Your task to perform on an android device: turn off location history Image 0: 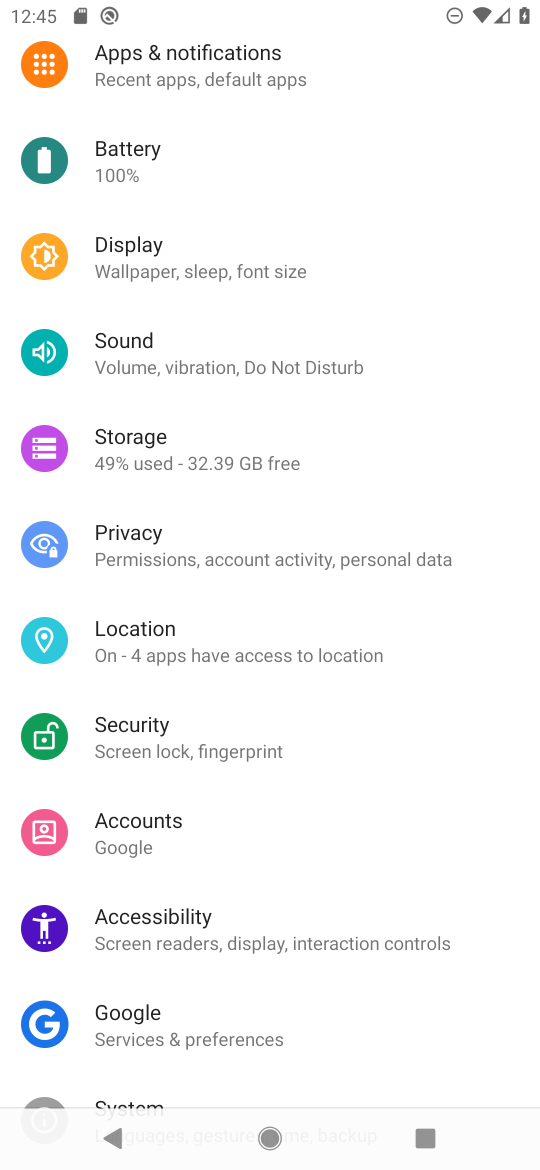
Step 0: click (129, 650)
Your task to perform on an android device: turn off location history Image 1: 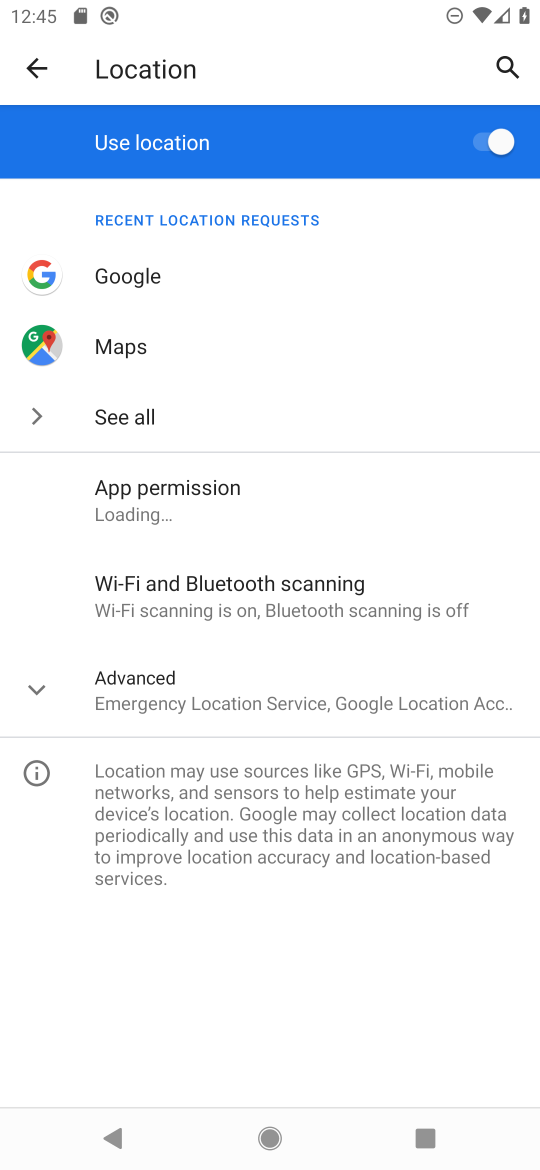
Step 1: click (330, 729)
Your task to perform on an android device: turn off location history Image 2: 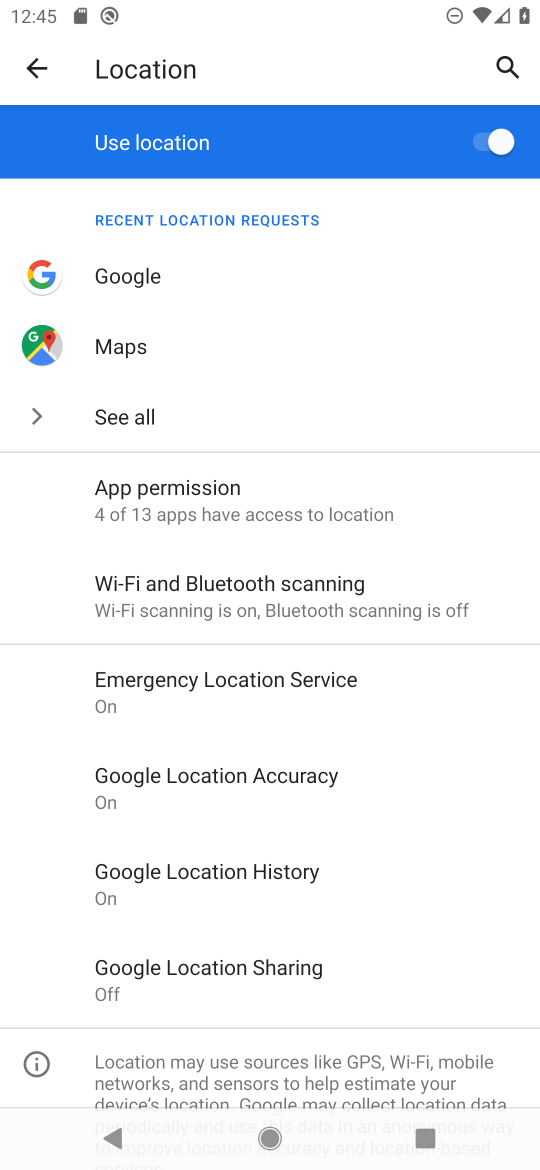
Step 2: click (243, 895)
Your task to perform on an android device: turn off location history Image 3: 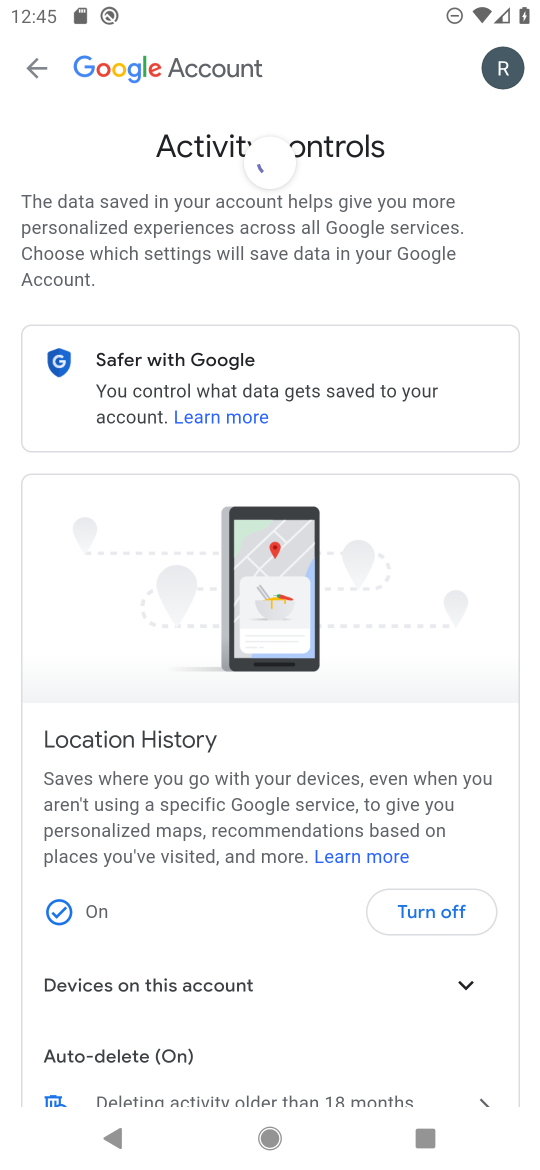
Step 3: click (404, 925)
Your task to perform on an android device: turn off location history Image 4: 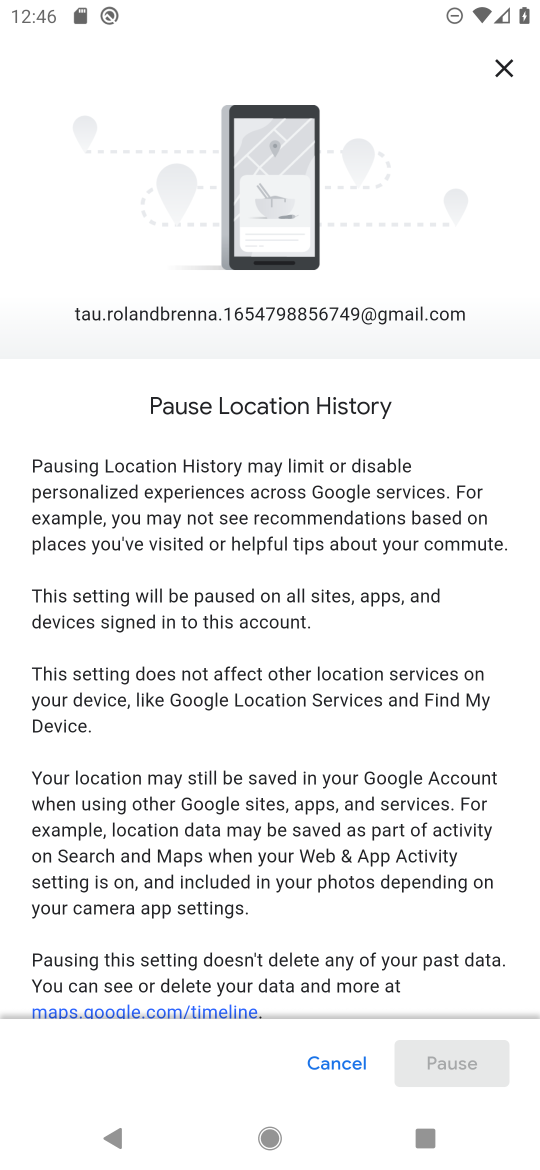
Step 4: drag from (317, 953) to (356, 120)
Your task to perform on an android device: turn off location history Image 5: 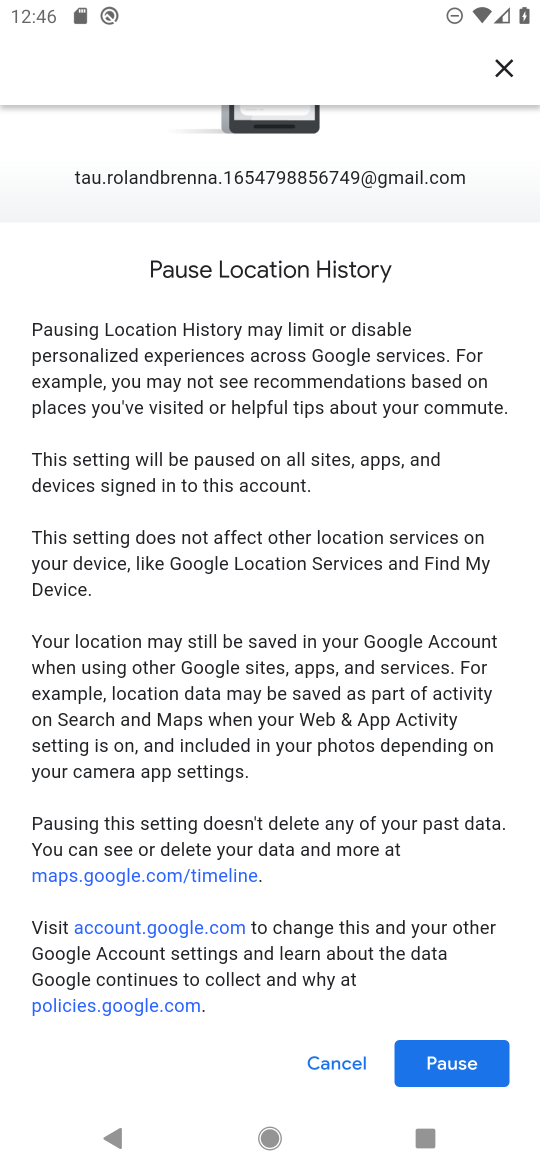
Step 5: drag from (359, 994) to (347, 151)
Your task to perform on an android device: turn off location history Image 6: 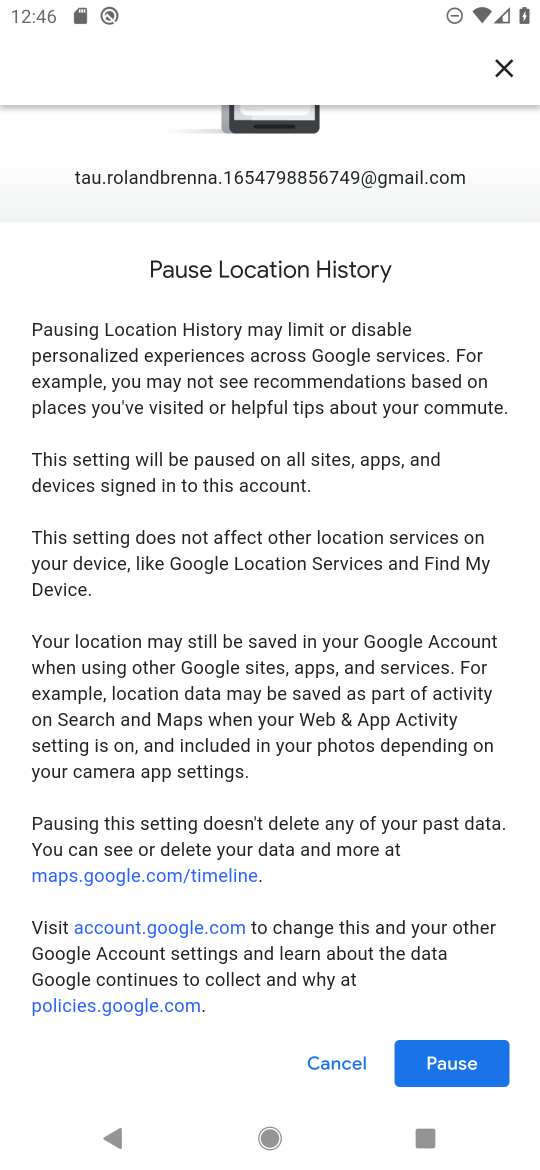
Step 6: click (449, 1051)
Your task to perform on an android device: turn off location history Image 7: 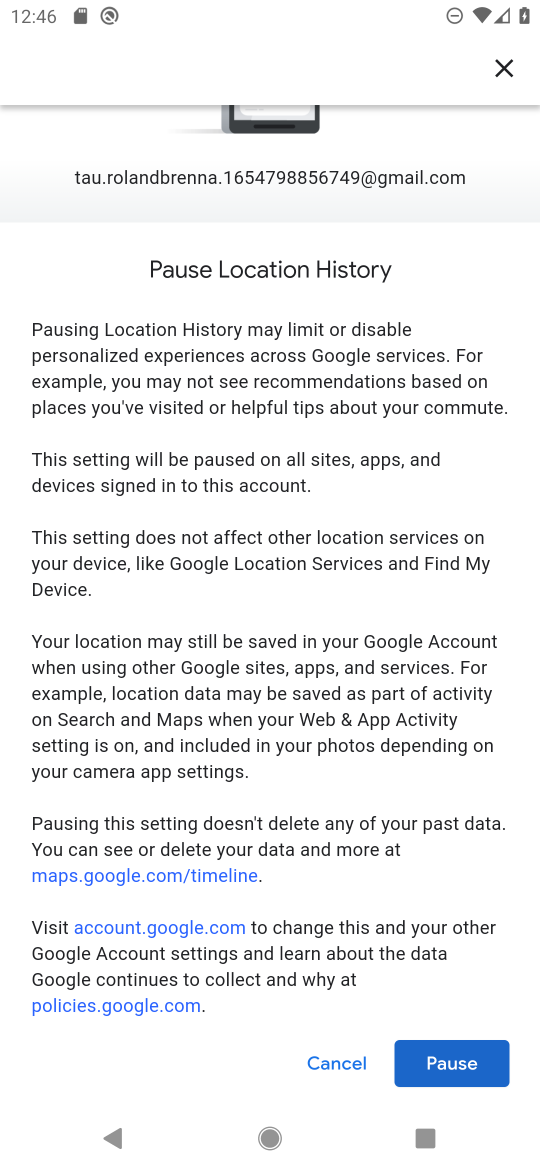
Step 7: task complete